Your task to perform on an android device: Add razer deathadder to the cart on costco.com, then select checkout. Image 0: 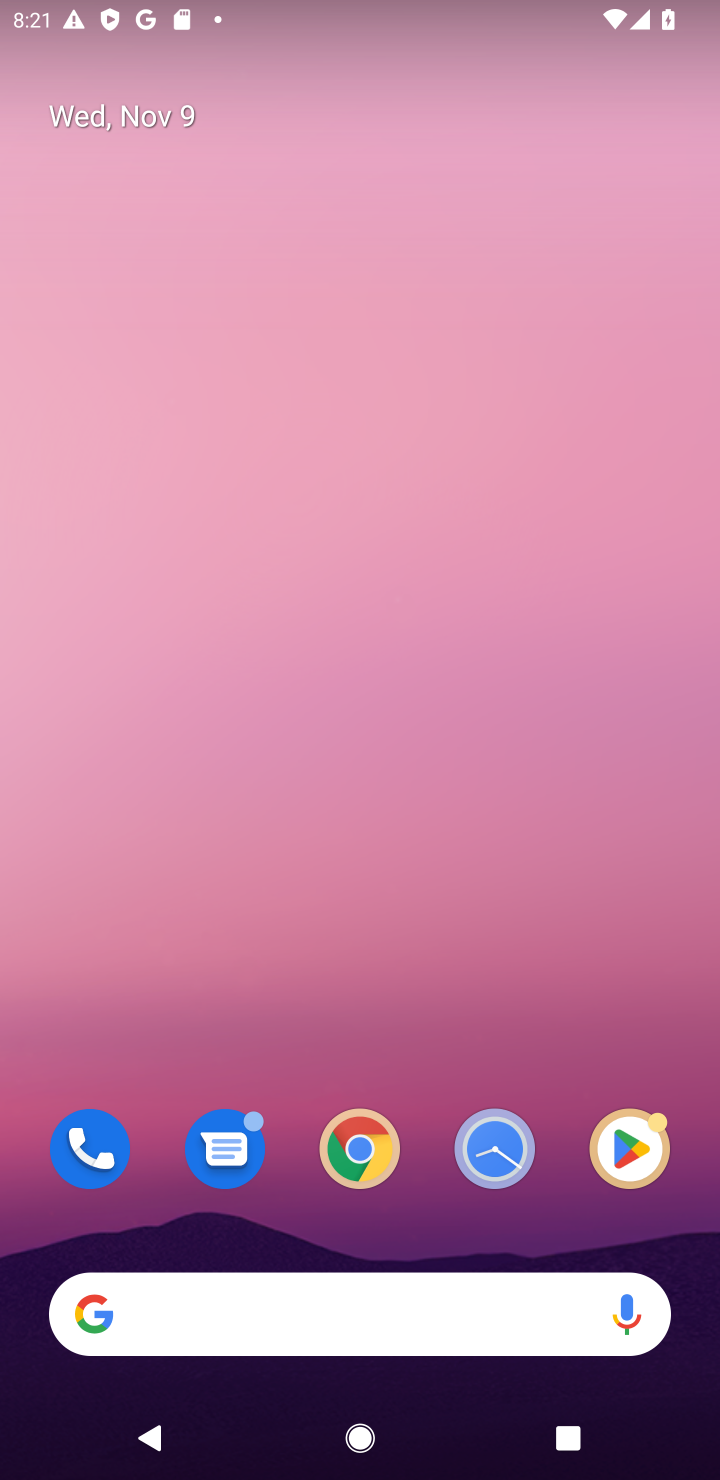
Step 0: drag from (376, 724) to (256, 277)
Your task to perform on an android device: Add razer deathadder to the cart on costco.com, then select checkout. Image 1: 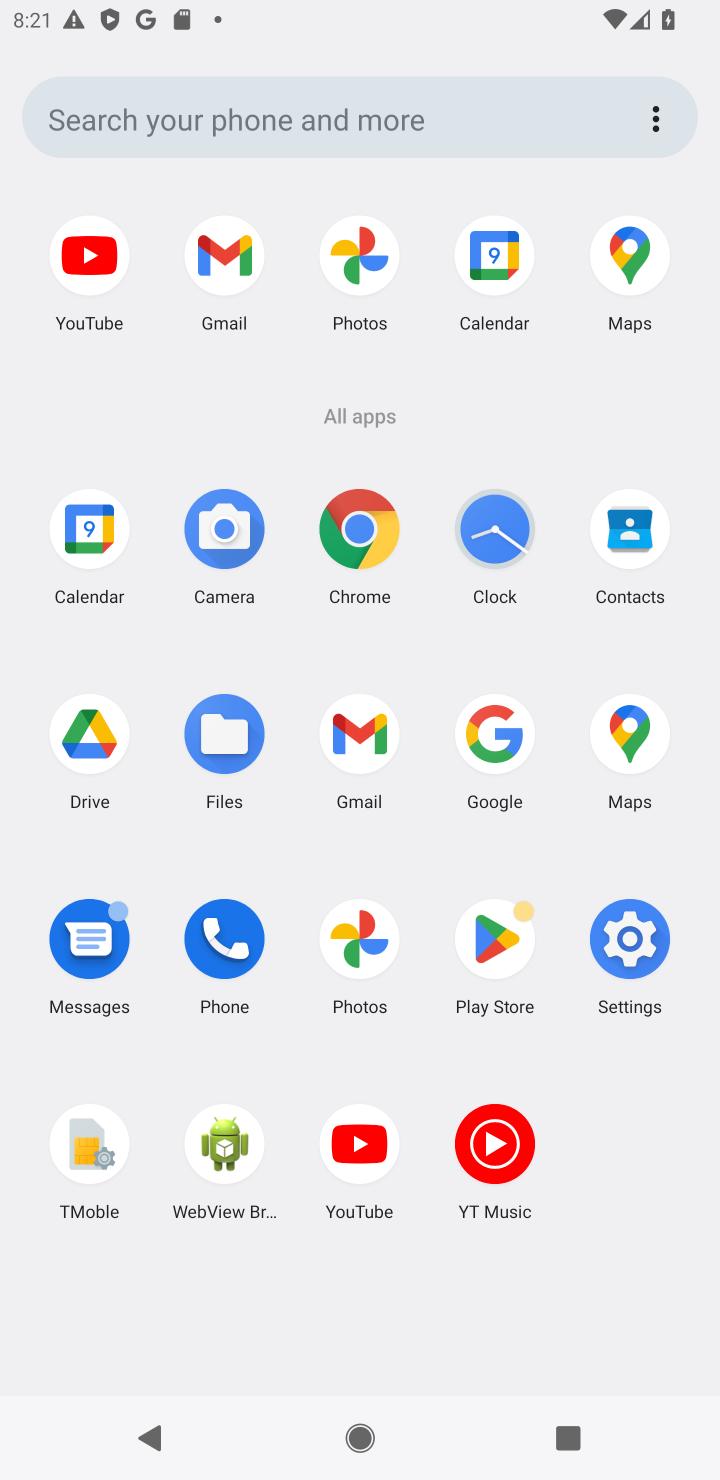
Step 1: click (388, 523)
Your task to perform on an android device: Add razer deathadder to the cart on costco.com, then select checkout. Image 2: 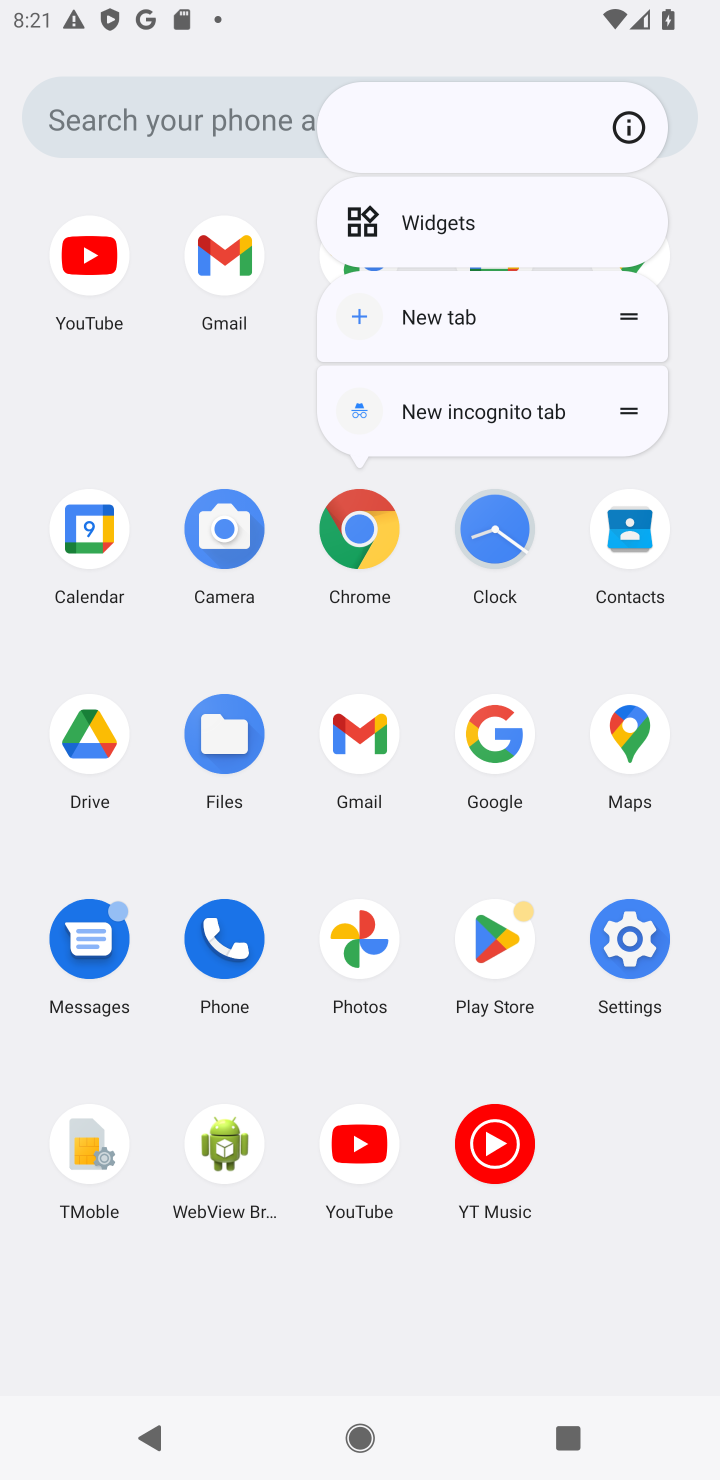
Step 2: click (388, 523)
Your task to perform on an android device: Add razer deathadder to the cart on costco.com, then select checkout. Image 3: 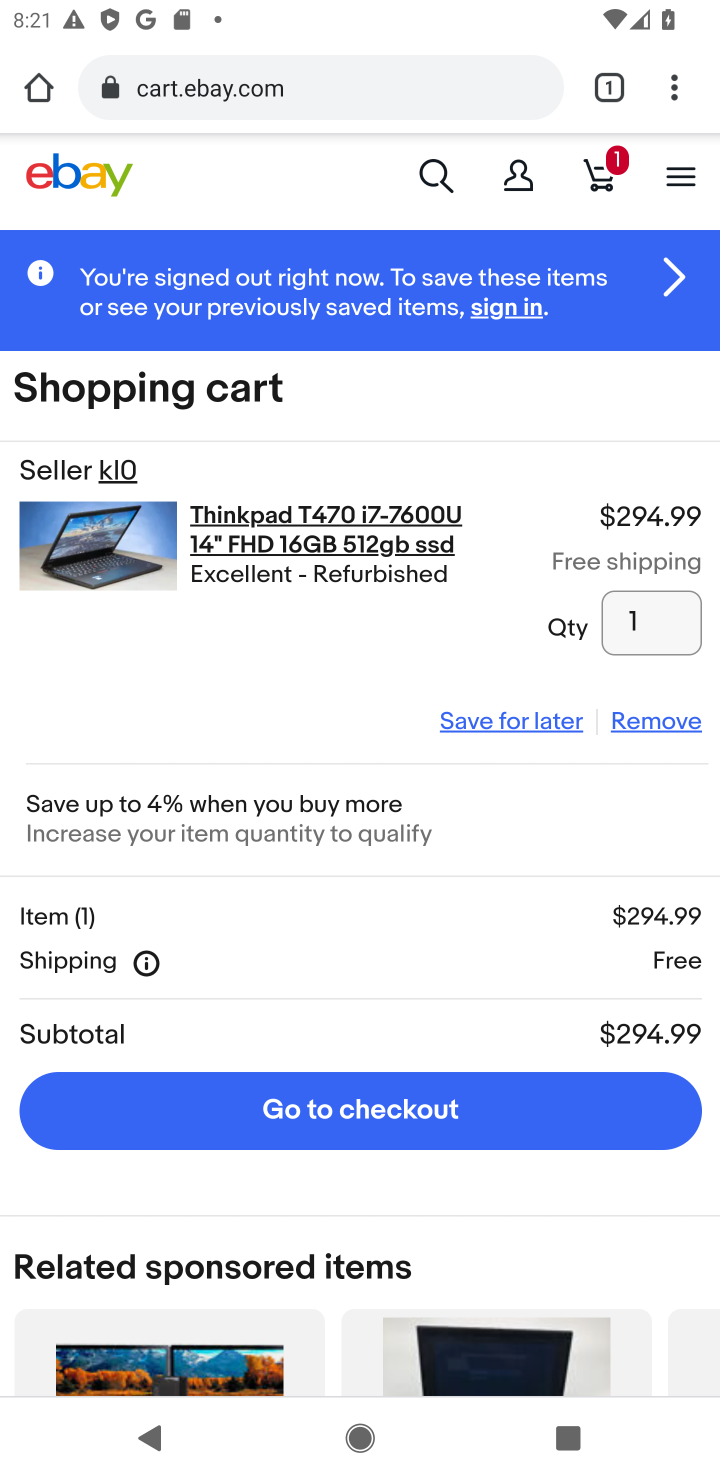
Step 3: click (325, 73)
Your task to perform on an android device: Add razer deathadder to the cart on costco.com, then select checkout. Image 4: 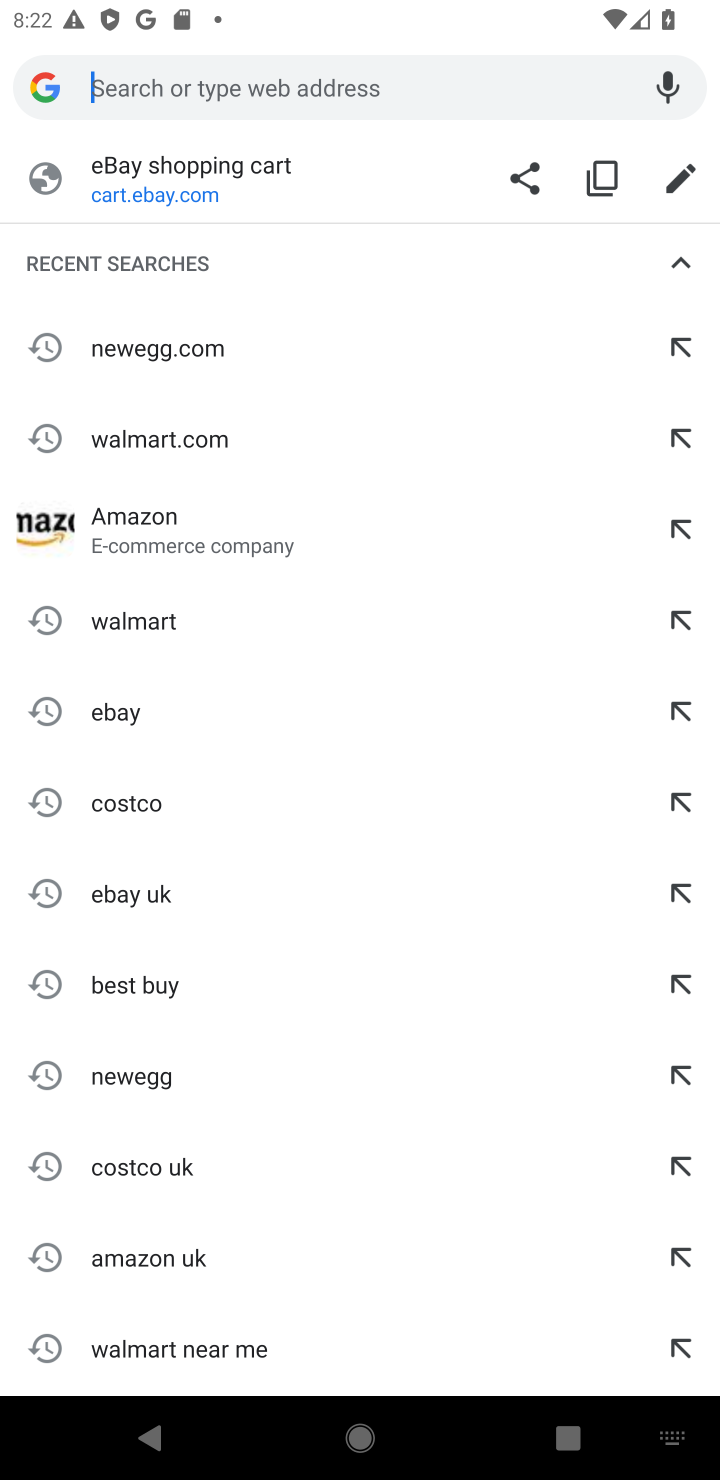
Step 4: type "costco.com"
Your task to perform on an android device: Add razer deathadder to the cart on costco.com, then select checkout. Image 5: 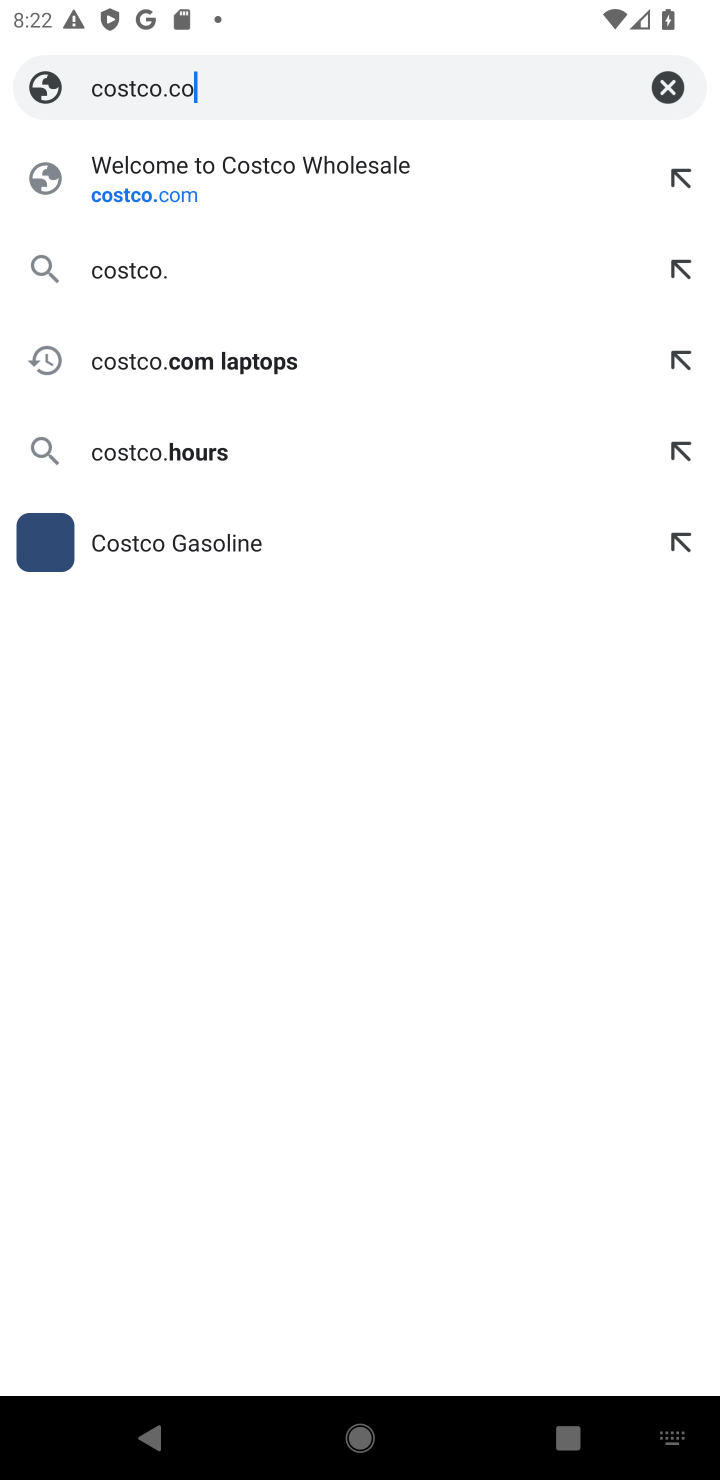
Step 5: press enter
Your task to perform on an android device: Add razer deathadder to the cart on costco.com, then select checkout. Image 6: 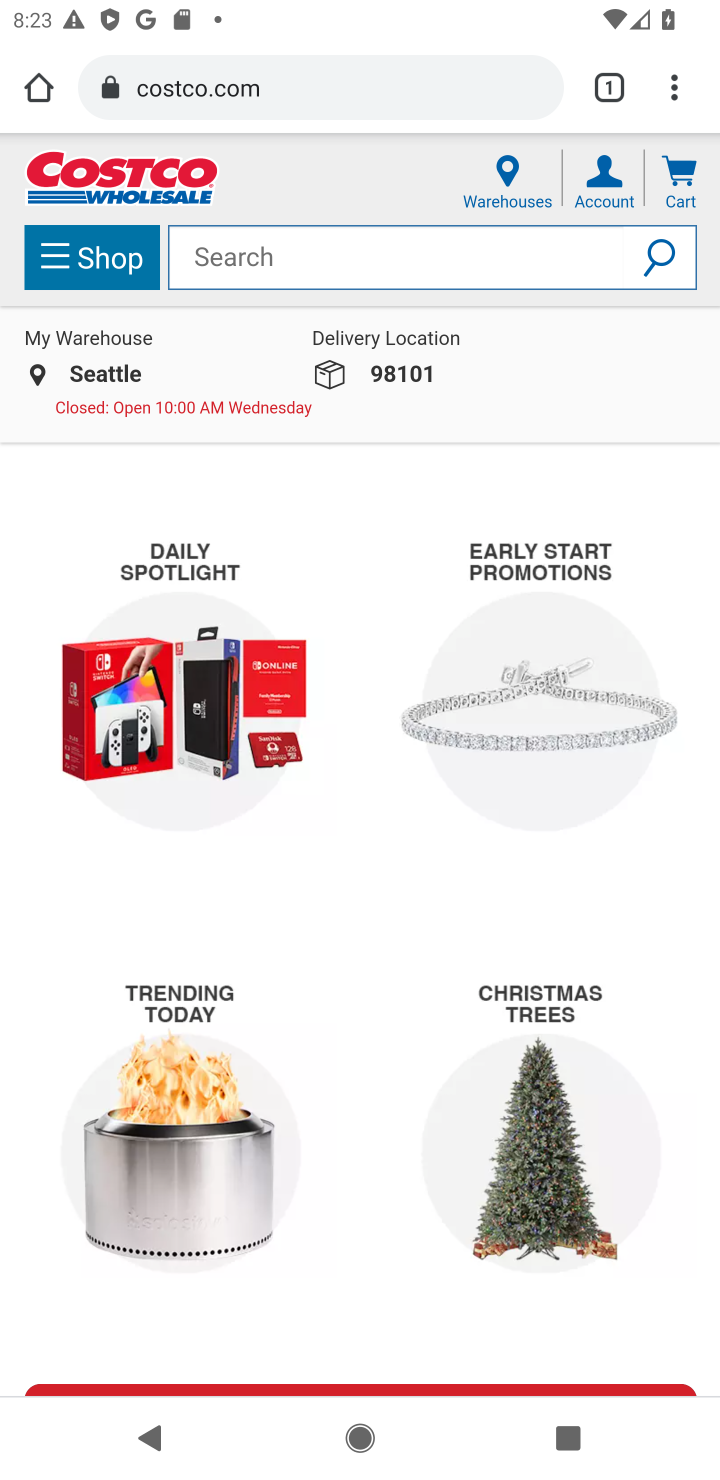
Step 6: click (294, 257)
Your task to perform on an android device: Add razer deathadder to the cart on costco.com, then select checkout. Image 7: 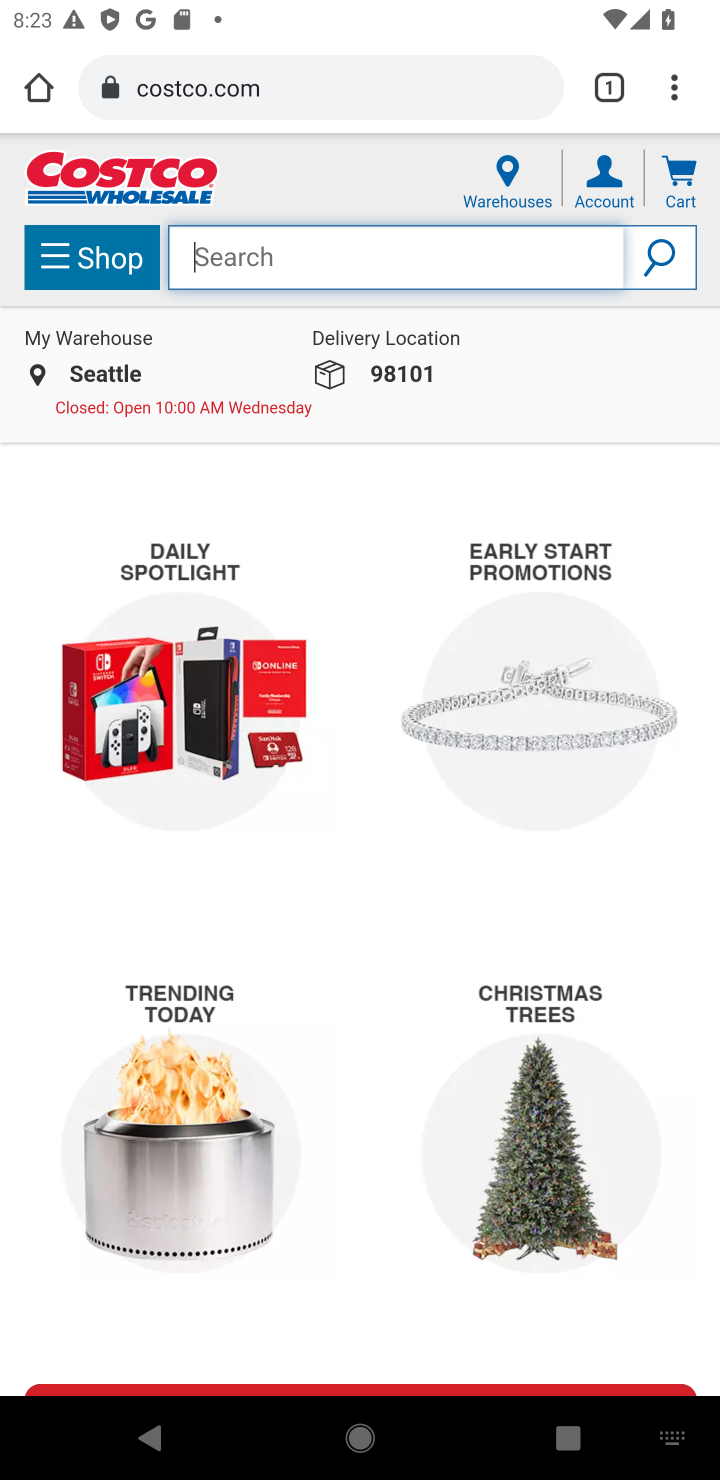
Step 7: press enter
Your task to perform on an android device: Add razer deathadder to the cart on costco.com, then select checkout. Image 8: 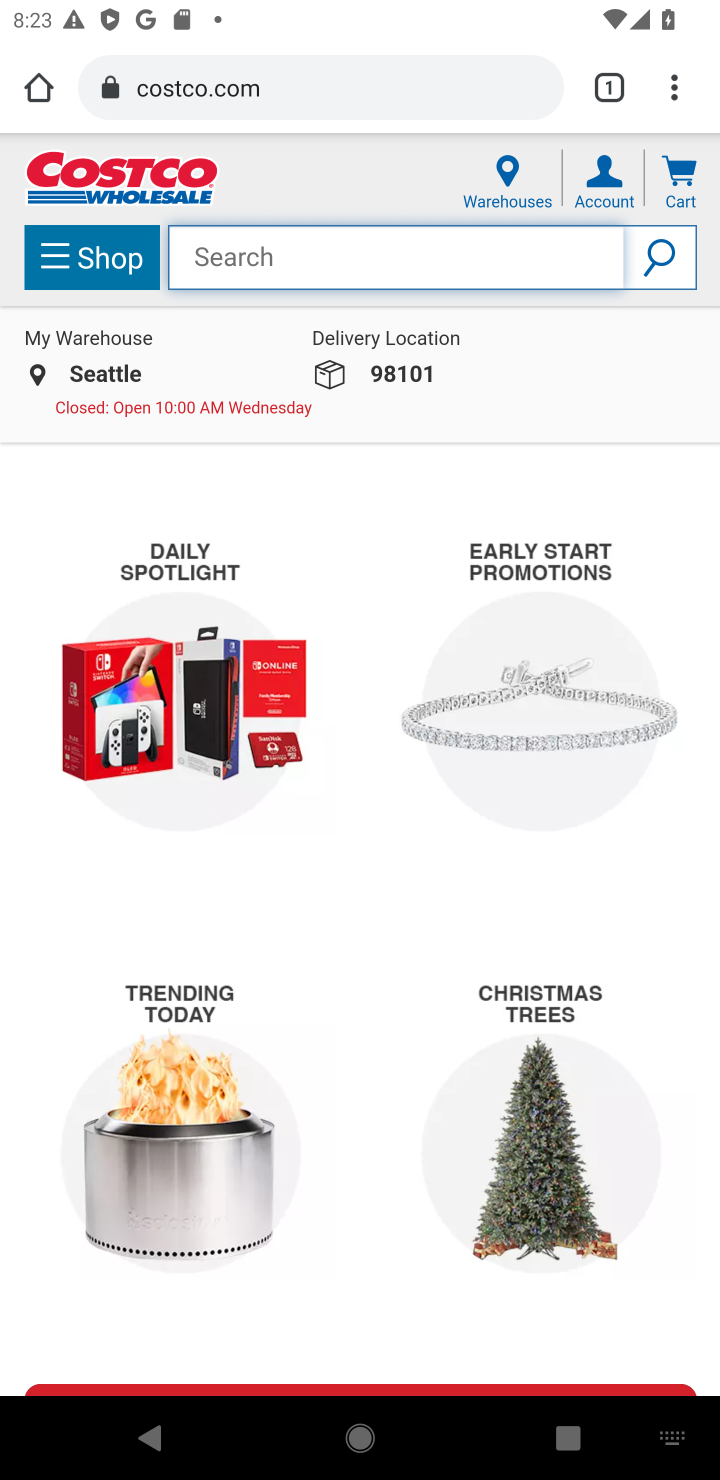
Step 8: type "razer deathadde"
Your task to perform on an android device: Add razer deathadder to the cart on costco.com, then select checkout. Image 9: 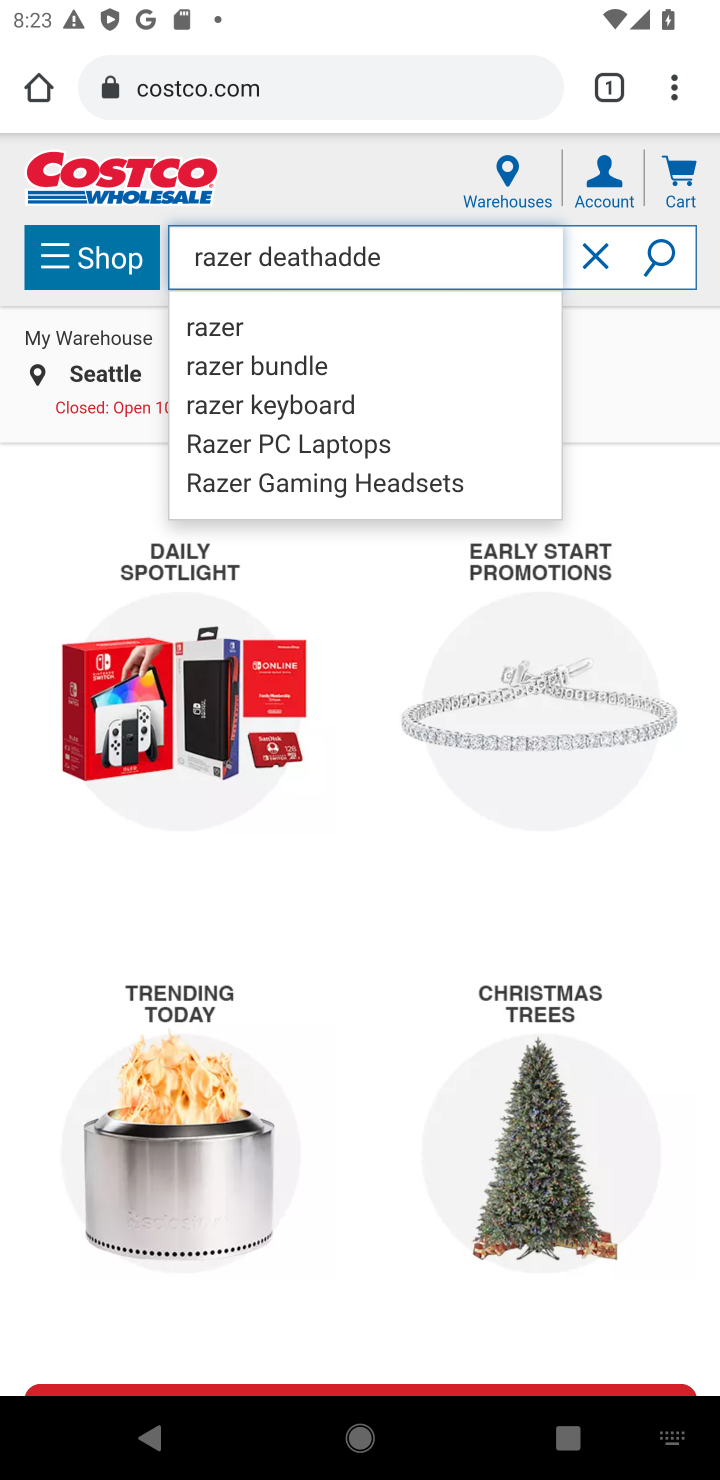
Step 9: press enter
Your task to perform on an android device: Add razer deathadder to the cart on costco.com, then select checkout. Image 10: 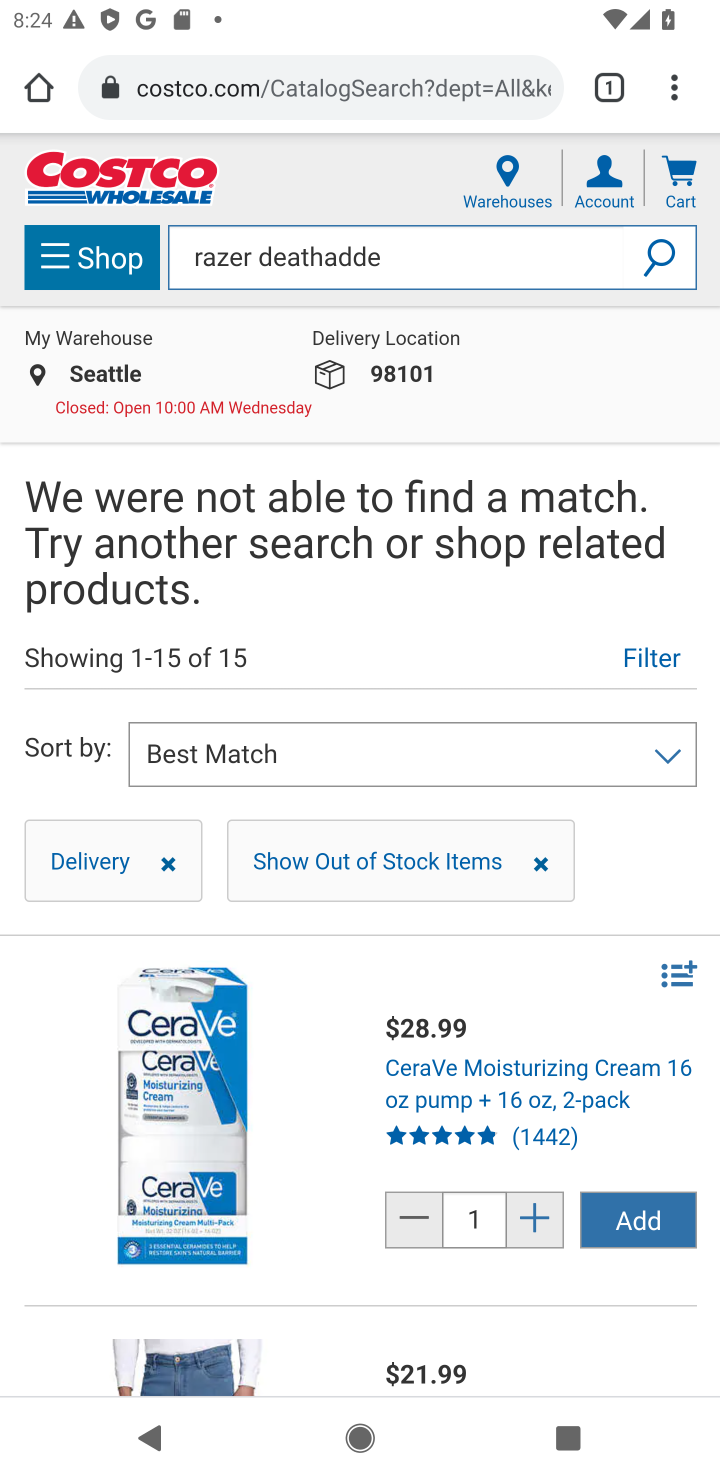
Step 10: drag from (388, 1155) to (359, 630)
Your task to perform on an android device: Add razer deathadder to the cart on costco.com, then select checkout. Image 11: 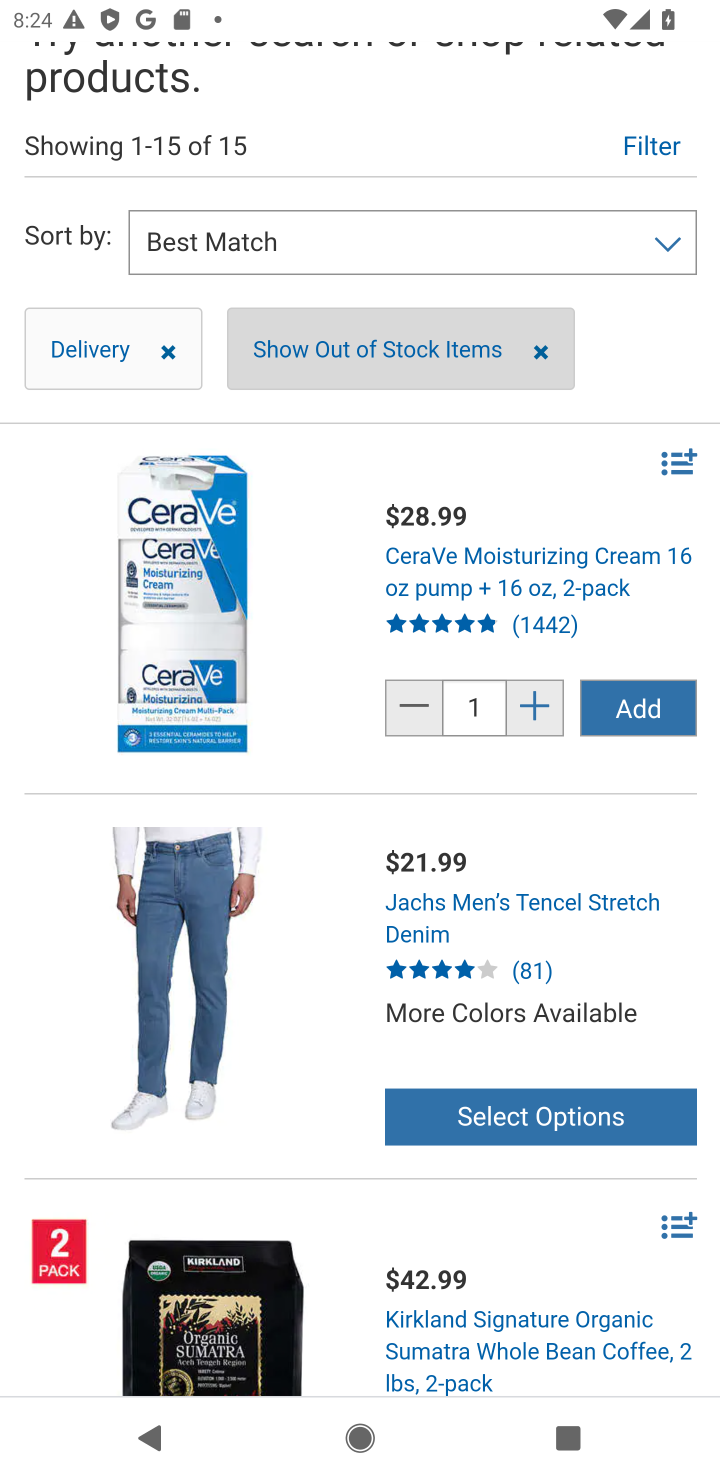
Step 11: click (642, 712)
Your task to perform on an android device: Add razer deathadder to the cart on costco.com, then select checkout. Image 12: 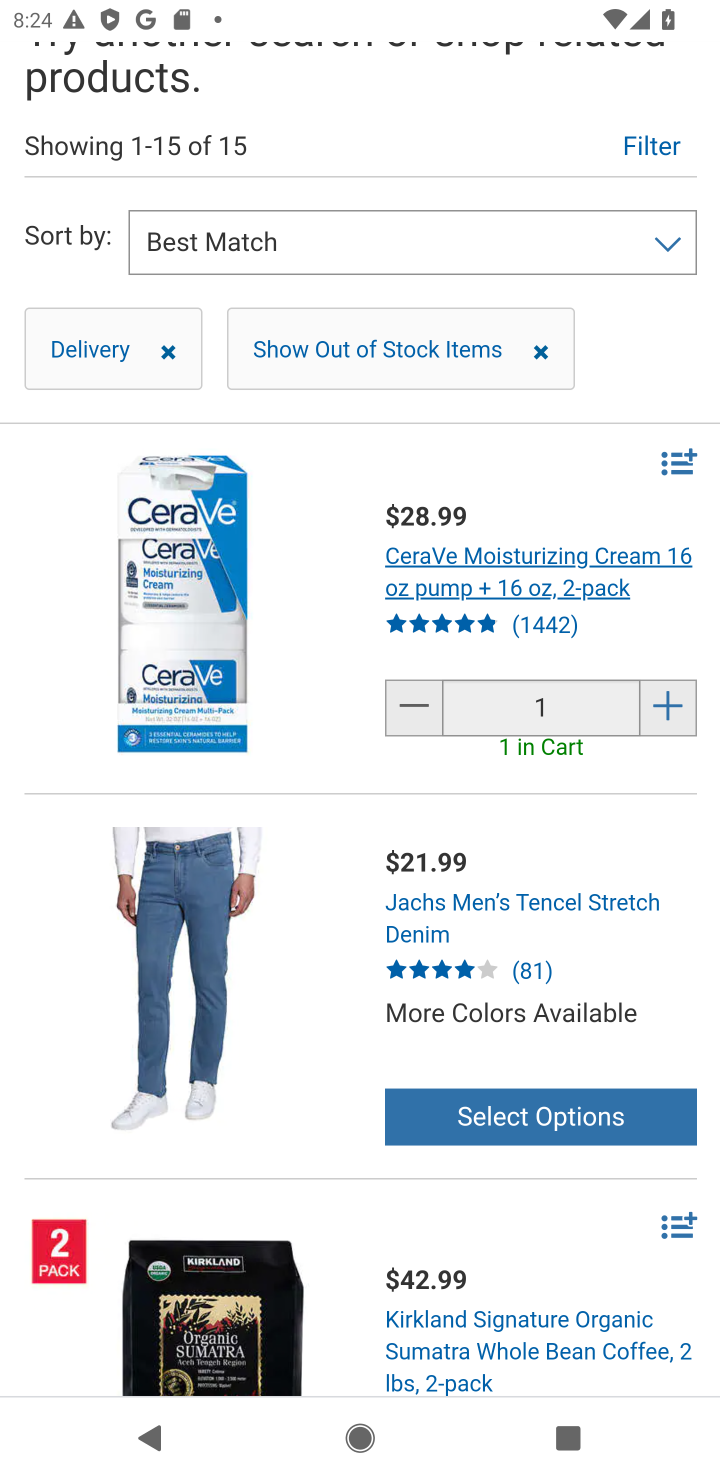
Step 12: drag from (497, 593) to (575, 1195)
Your task to perform on an android device: Add razer deathadder to the cart on costco.com, then select checkout. Image 13: 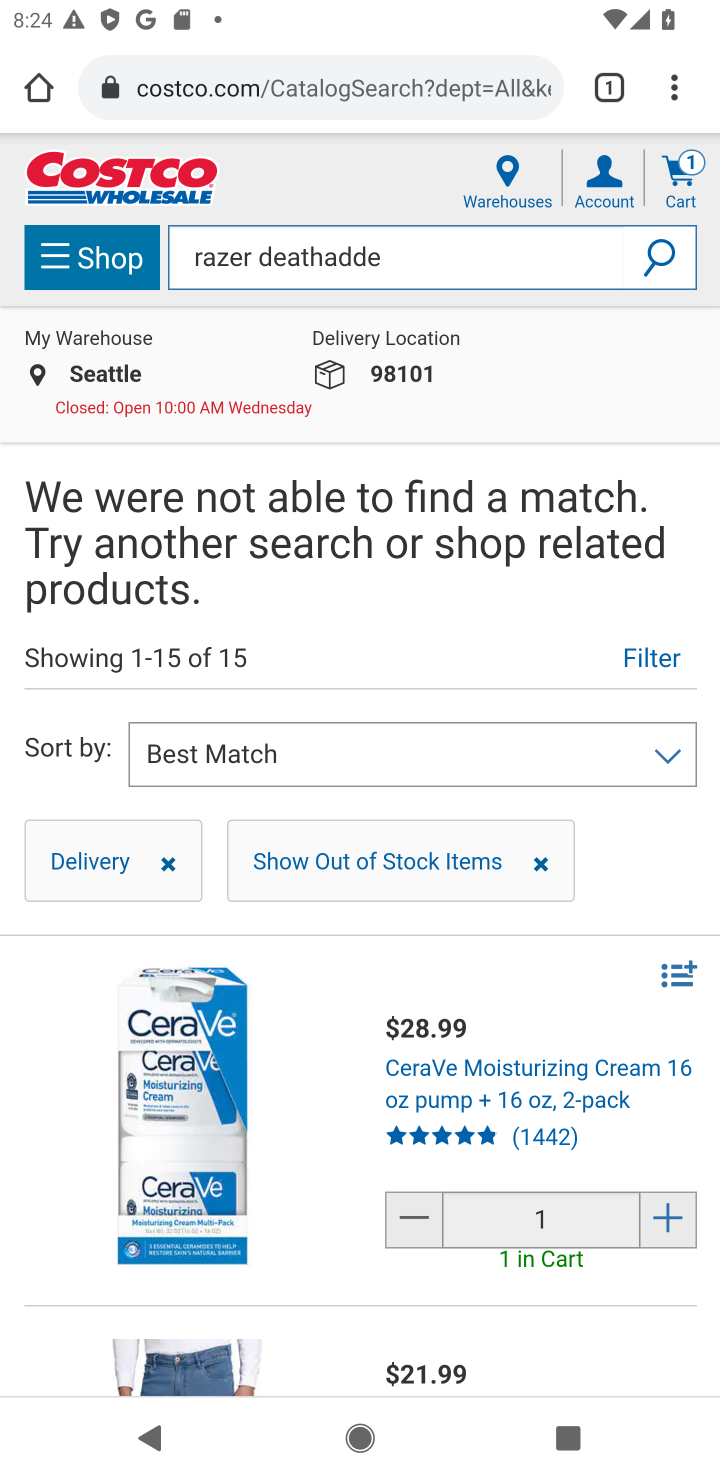
Step 13: click (679, 148)
Your task to perform on an android device: Add razer deathadder to the cart on costco.com, then select checkout. Image 14: 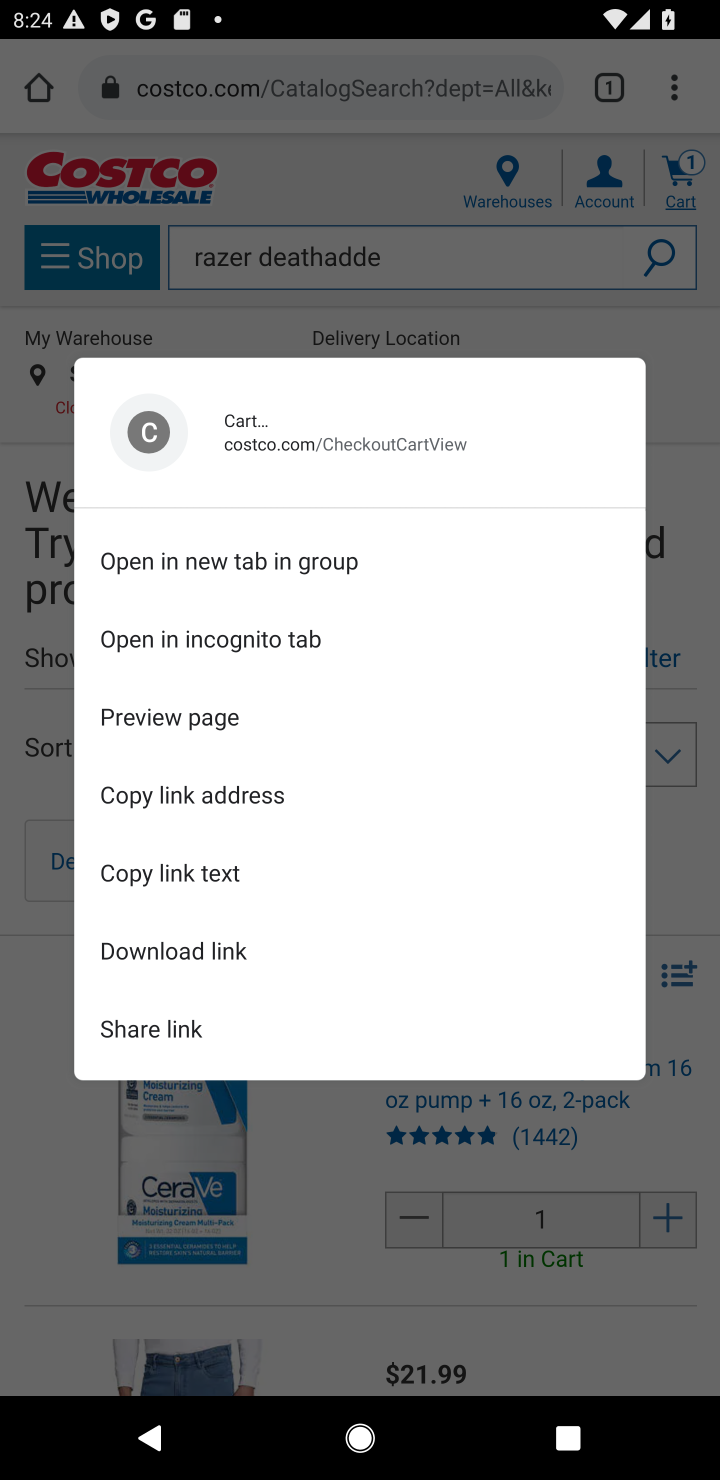
Step 14: click (702, 333)
Your task to perform on an android device: Add razer deathadder to the cart on costco.com, then select checkout. Image 15: 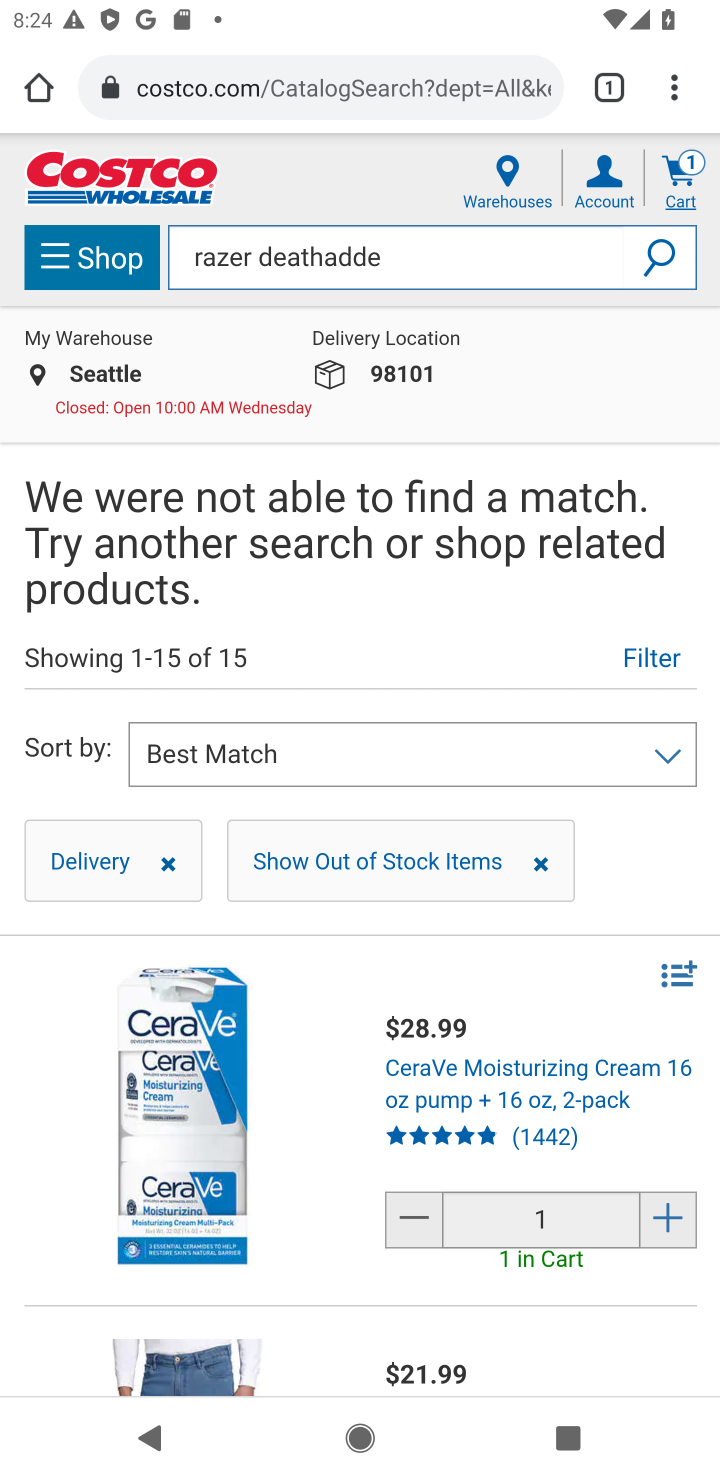
Step 15: click (682, 153)
Your task to perform on an android device: Add razer deathadder to the cart on costco.com, then select checkout. Image 16: 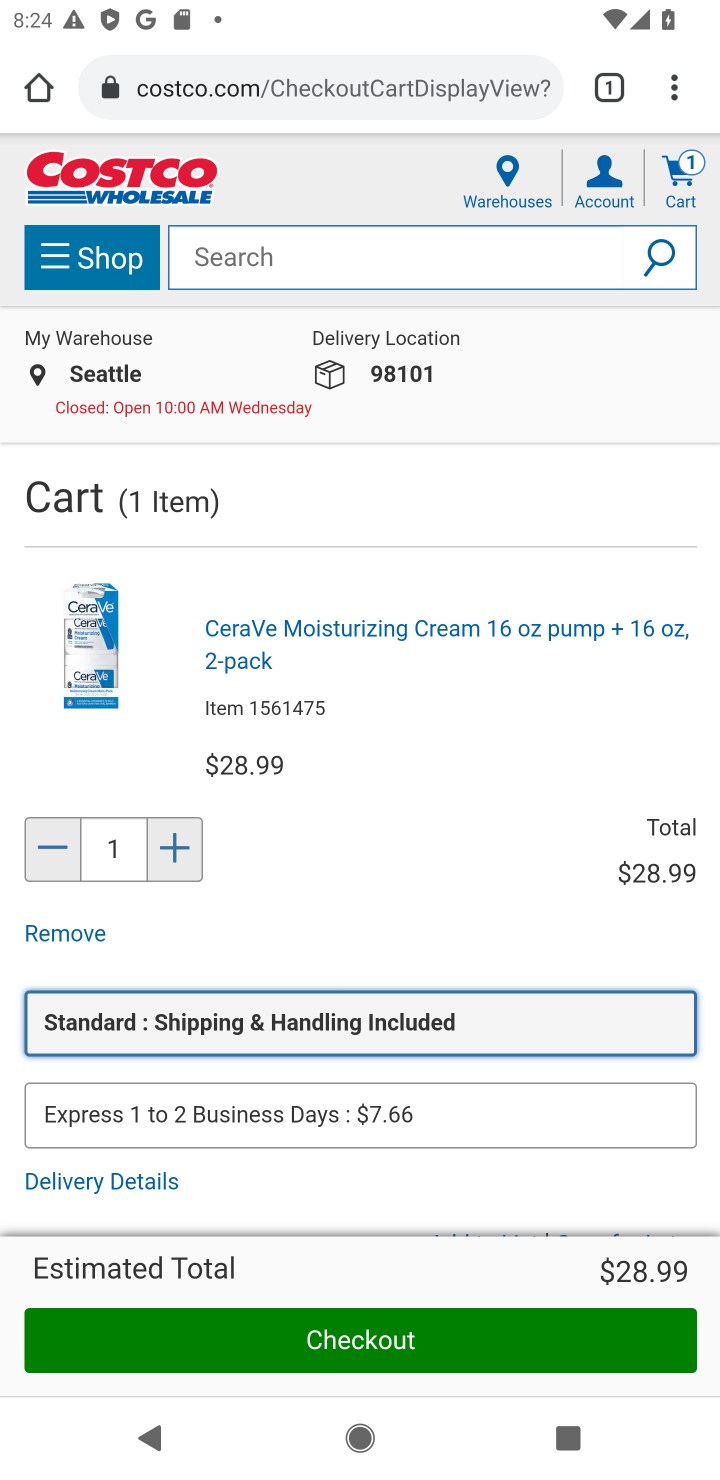
Step 16: click (374, 1333)
Your task to perform on an android device: Add razer deathadder to the cart on costco.com, then select checkout. Image 17: 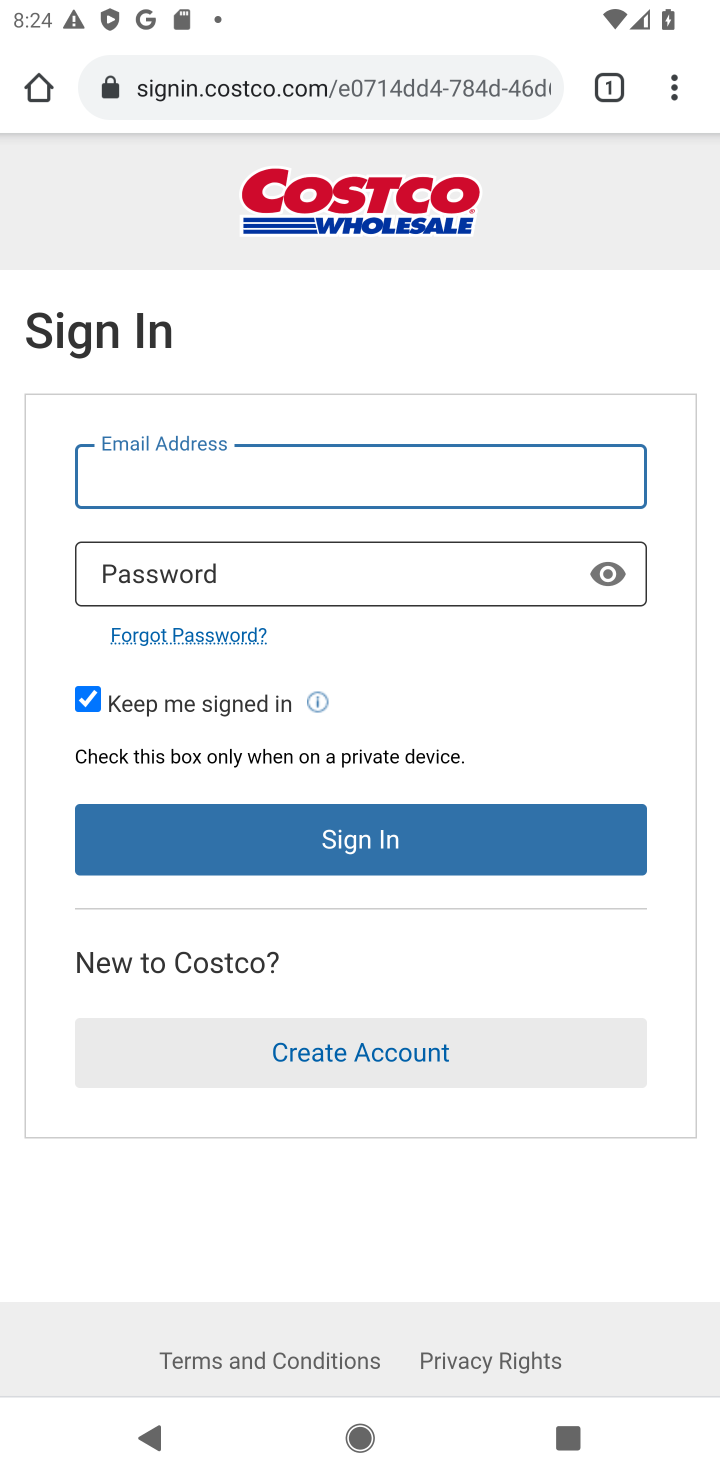
Step 17: task complete